Your task to perform on an android device: Go to Google Image 0: 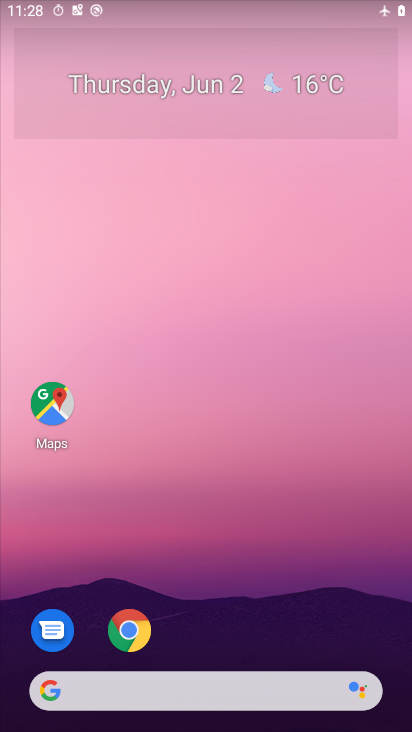
Step 0: click (149, 685)
Your task to perform on an android device: Go to Google Image 1: 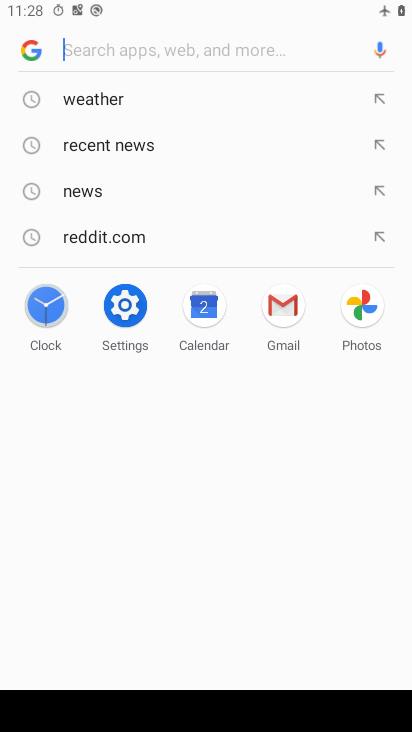
Step 1: click (25, 54)
Your task to perform on an android device: Go to Google Image 2: 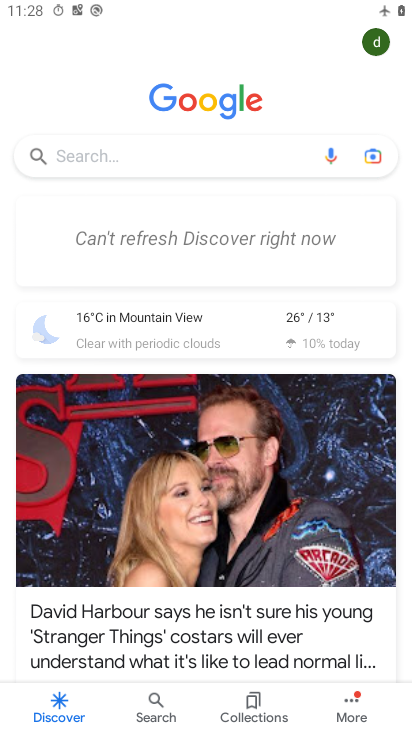
Step 2: task complete